Your task to perform on an android device: empty trash in the gmail app Image 0: 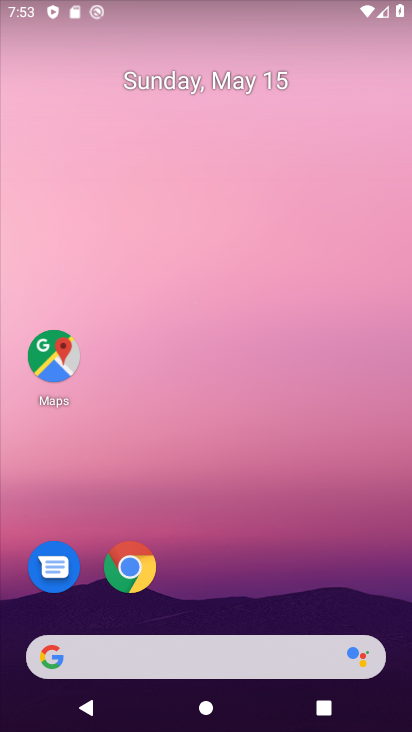
Step 0: drag from (192, 541) to (271, 123)
Your task to perform on an android device: empty trash in the gmail app Image 1: 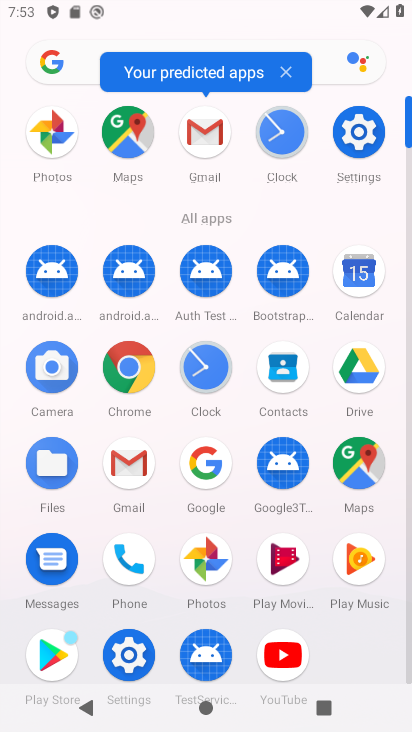
Step 1: click (218, 138)
Your task to perform on an android device: empty trash in the gmail app Image 2: 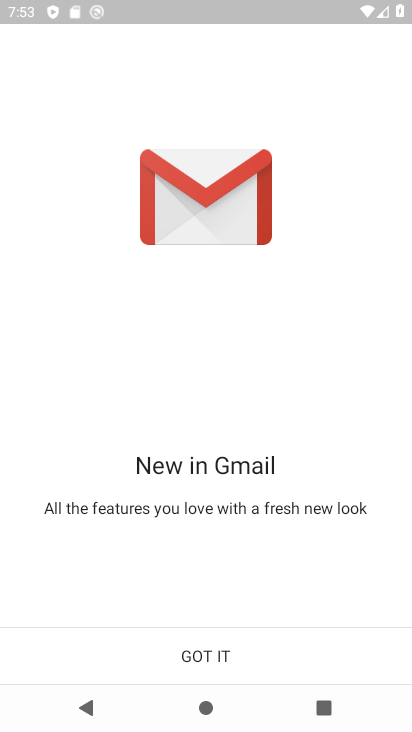
Step 2: click (220, 661)
Your task to perform on an android device: empty trash in the gmail app Image 3: 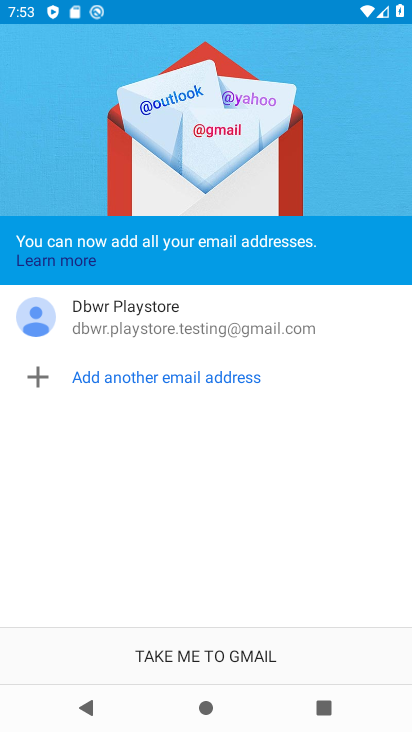
Step 3: click (212, 666)
Your task to perform on an android device: empty trash in the gmail app Image 4: 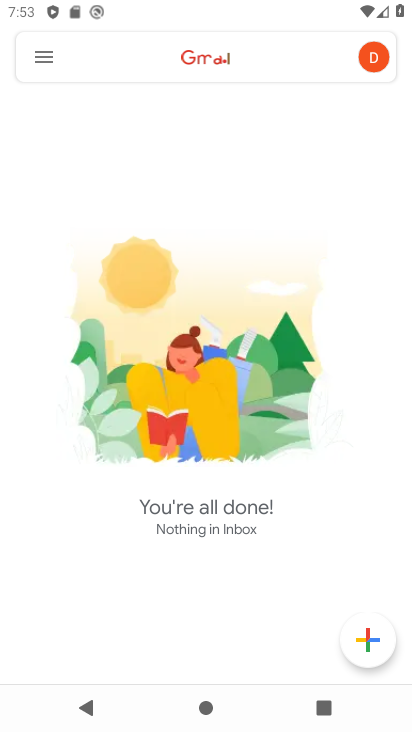
Step 4: click (39, 62)
Your task to perform on an android device: empty trash in the gmail app Image 5: 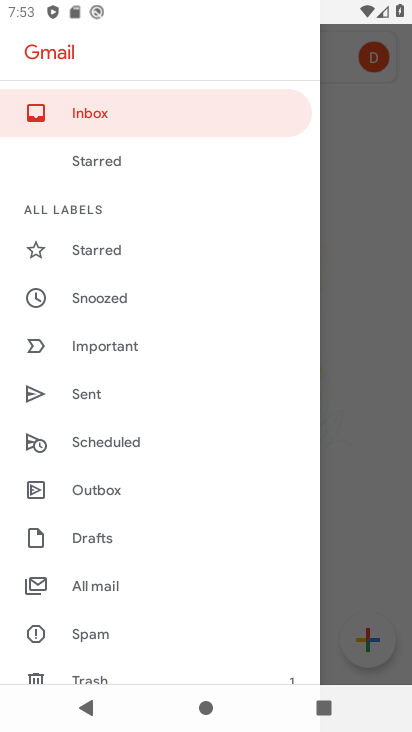
Step 5: click (80, 673)
Your task to perform on an android device: empty trash in the gmail app Image 6: 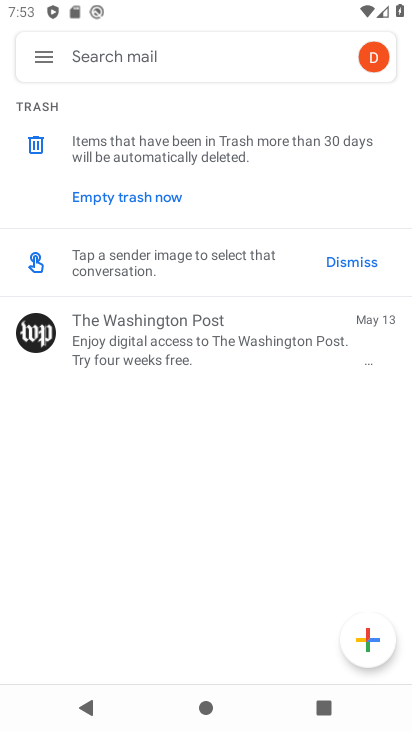
Step 6: click (183, 203)
Your task to perform on an android device: empty trash in the gmail app Image 7: 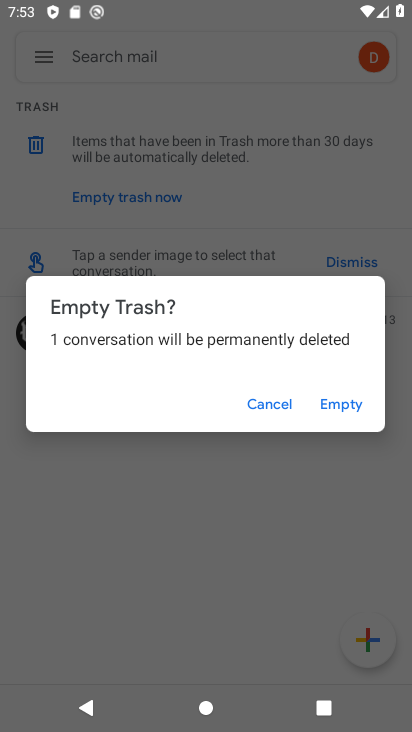
Step 7: click (360, 412)
Your task to perform on an android device: empty trash in the gmail app Image 8: 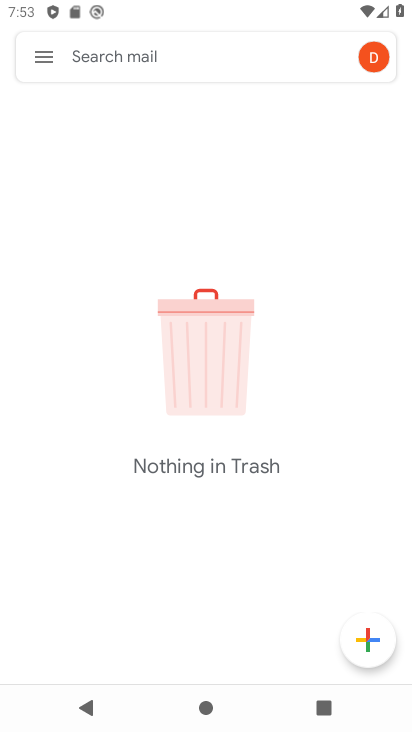
Step 8: task complete